Your task to perform on an android device: Search for Italian restaurants on Maps Image 0: 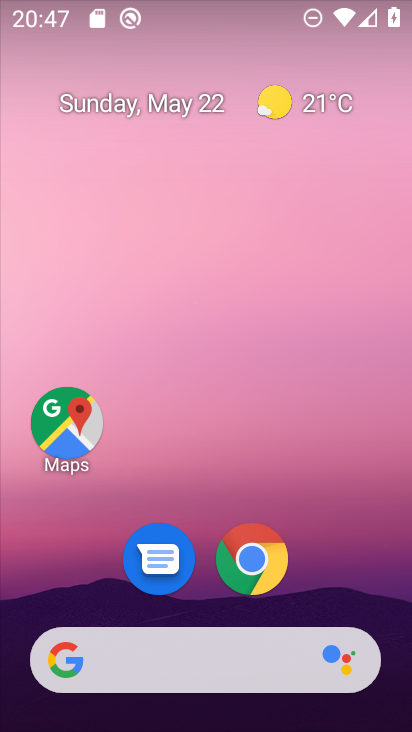
Step 0: press home button
Your task to perform on an android device: Search for Italian restaurants on Maps Image 1: 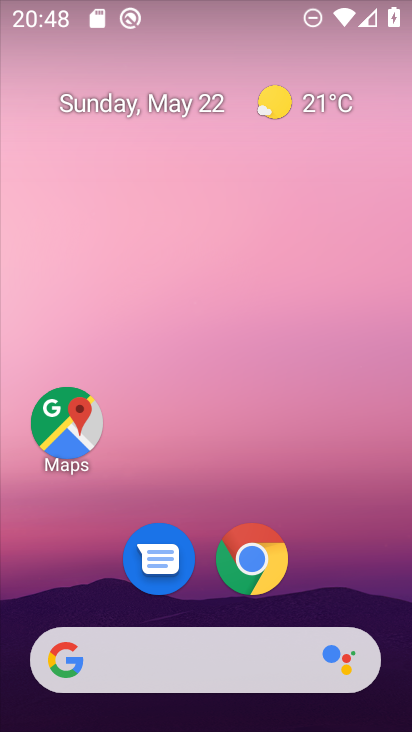
Step 1: drag from (254, 596) to (245, 233)
Your task to perform on an android device: Search for Italian restaurants on Maps Image 2: 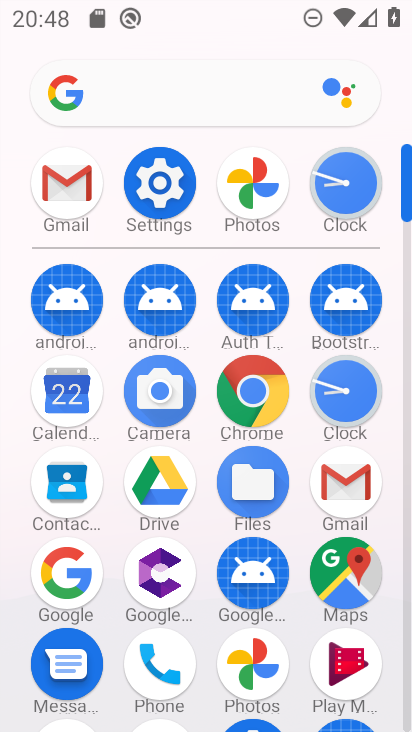
Step 2: click (345, 563)
Your task to perform on an android device: Search for Italian restaurants on Maps Image 3: 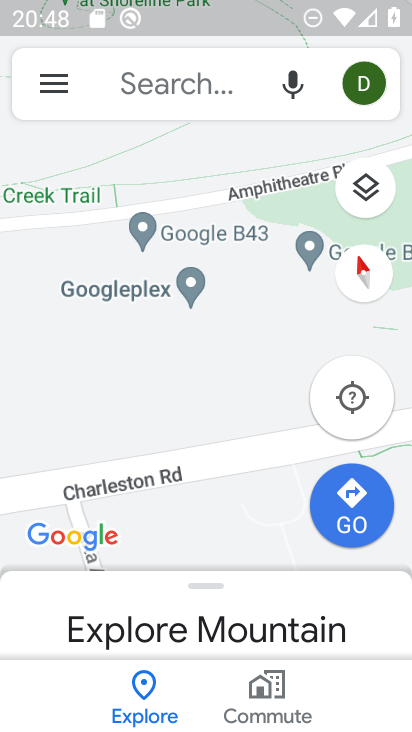
Step 3: click (150, 108)
Your task to perform on an android device: Search for Italian restaurants on Maps Image 4: 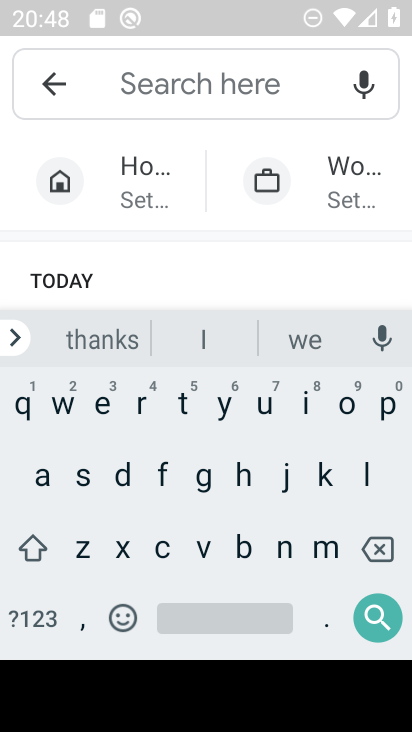
Step 4: click (295, 405)
Your task to perform on an android device: Search for Italian restaurants on Maps Image 5: 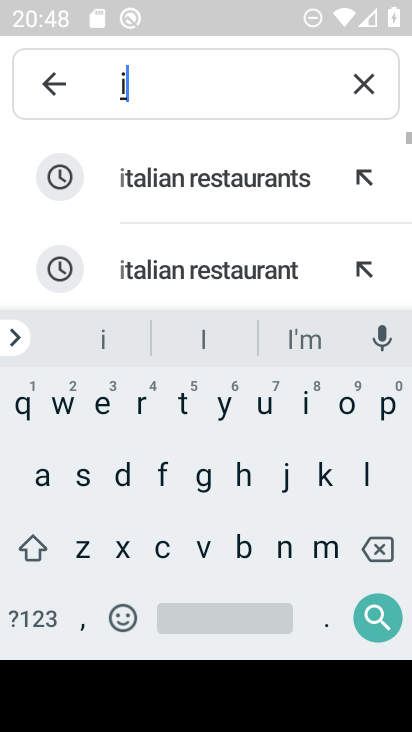
Step 5: click (180, 197)
Your task to perform on an android device: Search for Italian restaurants on Maps Image 6: 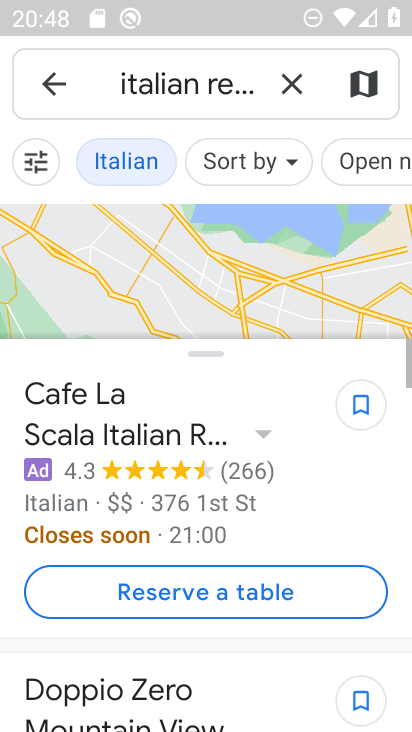
Step 6: task complete